Your task to perform on an android device: turn on javascript in the chrome app Image 0: 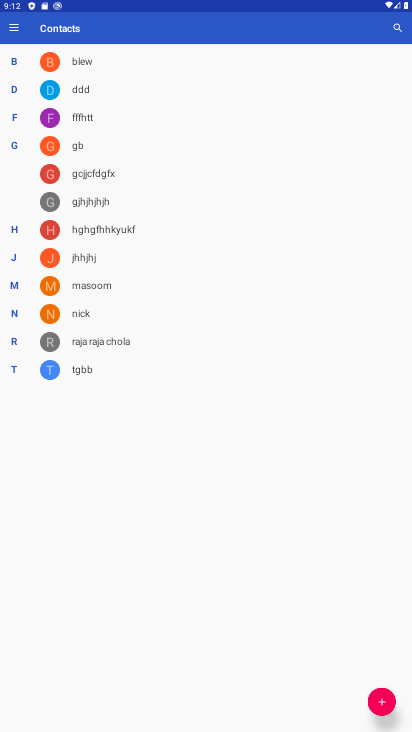
Step 0: press home button
Your task to perform on an android device: turn on javascript in the chrome app Image 1: 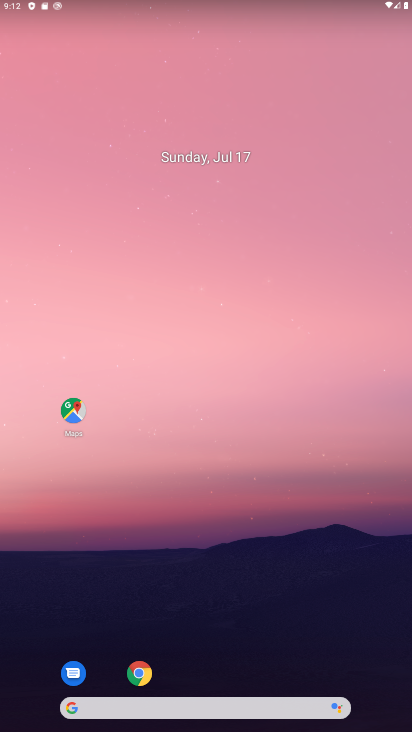
Step 1: click (143, 674)
Your task to perform on an android device: turn on javascript in the chrome app Image 2: 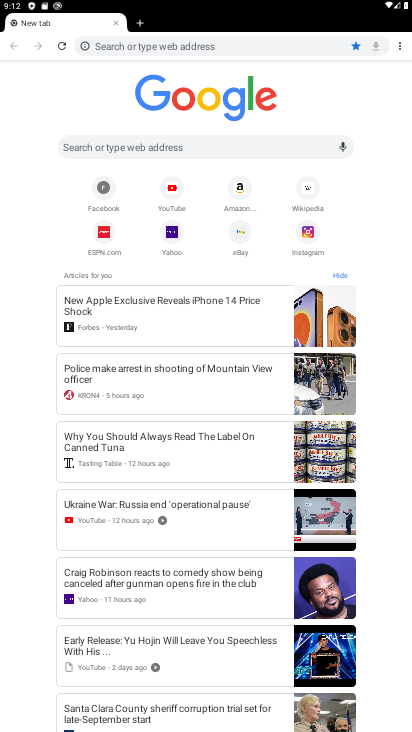
Step 2: click (402, 42)
Your task to perform on an android device: turn on javascript in the chrome app Image 3: 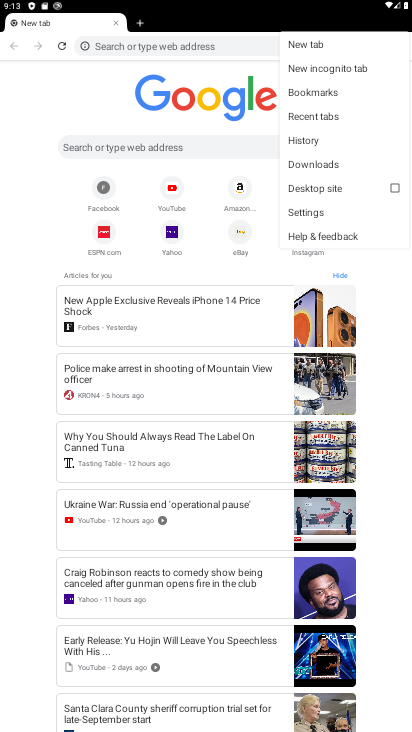
Step 3: click (303, 210)
Your task to perform on an android device: turn on javascript in the chrome app Image 4: 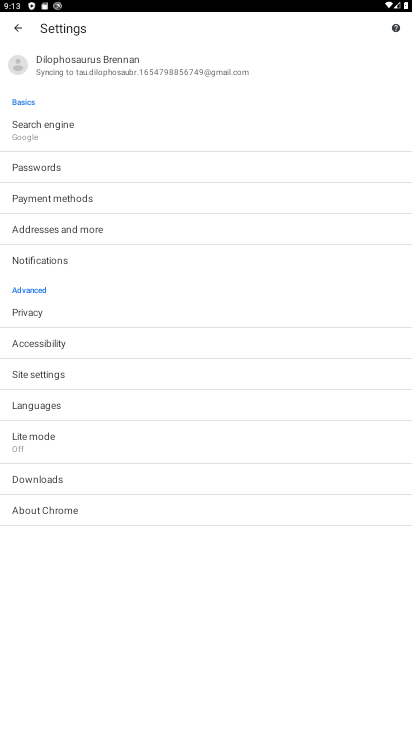
Step 4: click (76, 373)
Your task to perform on an android device: turn on javascript in the chrome app Image 5: 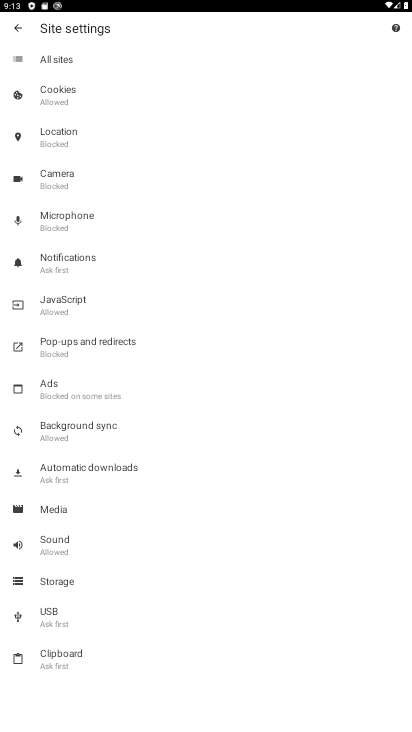
Step 5: click (88, 296)
Your task to perform on an android device: turn on javascript in the chrome app Image 6: 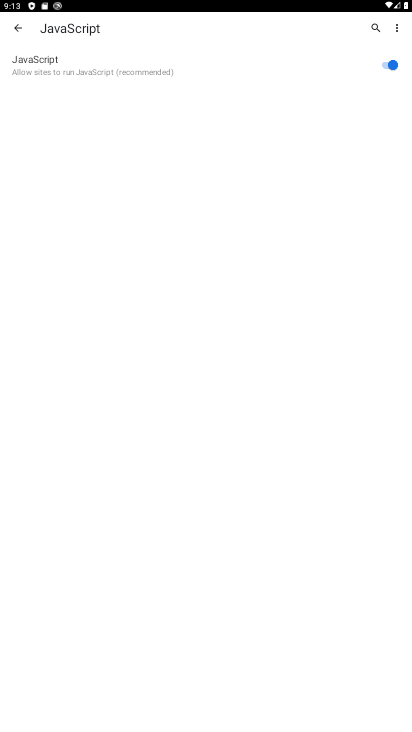
Step 6: task complete